Your task to perform on an android device: What's the weather going to be this weekend? Image 0: 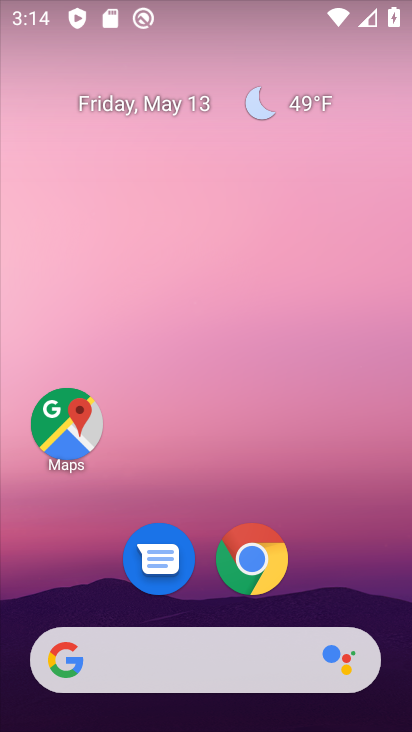
Step 0: drag from (399, 655) to (288, 108)
Your task to perform on an android device: What's the weather going to be this weekend? Image 1: 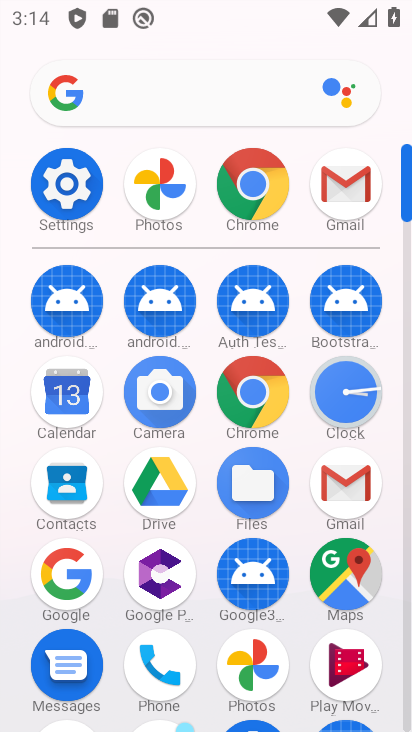
Step 1: drag from (298, 132) to (236, 631)
Your task to perform on an android device: What's the weather going to be this weekend? Image 2: 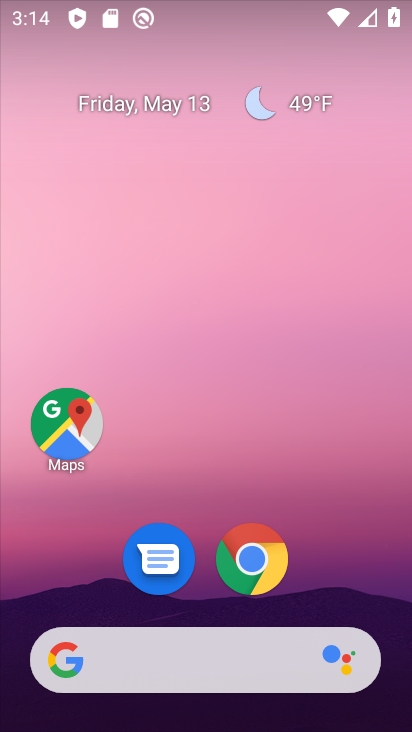
Step 2: click (306, 104)
Your task to perform on an android device: What's the weather going to be this weekend? Image 3: 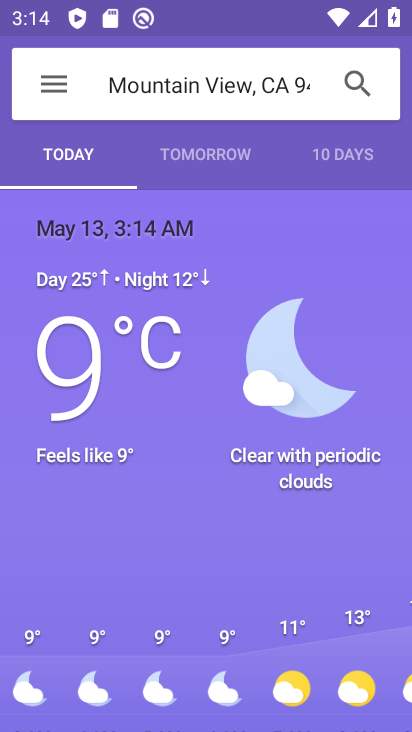
Step 3: click (350, 151)
Your task to perform on an android device: What's the weather going to be this weekend? Image 4: 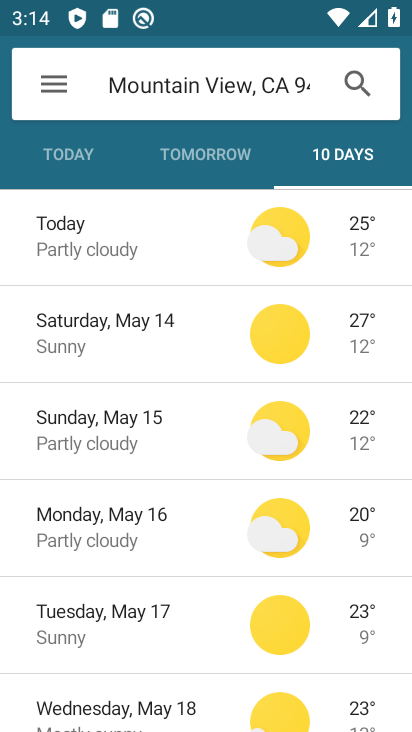
Step 4: task complete